Your task to perform on an android device: Open calendar and show me the second week of next month Image 0: 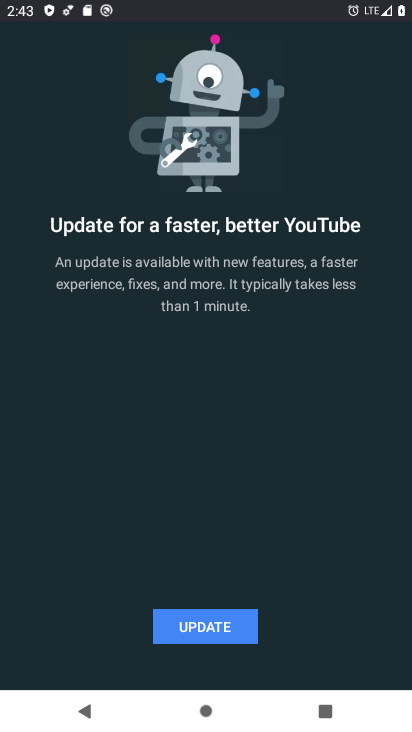
Step 0: press back button
Your task to perform on an android device: Open calendar and show me the second week of next month Image 1: 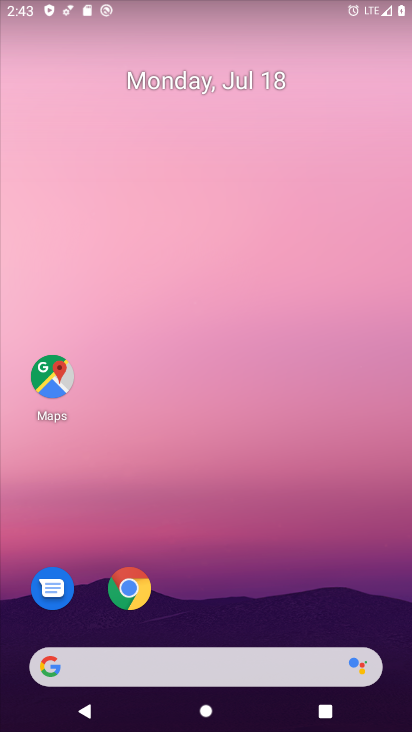
Step 1: drag from (179, 592) to (269, 137)
Your task to perform on an android device: Open calendar and show me the second week of next month Image 2: 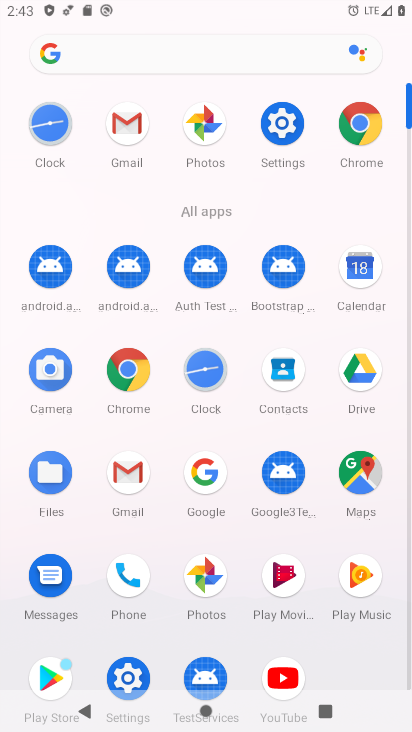
Step 2: click (364, 274)
Your task to perform on an android device: Open calendar and show me the second week of next month Image 3: 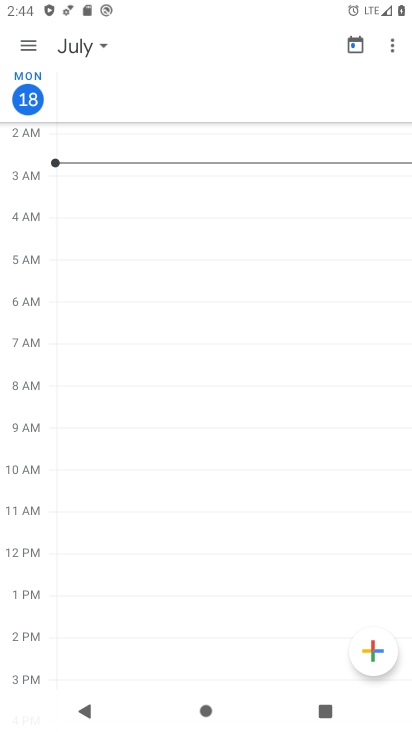
Step 3: click (97, 37)
Your task to perform on an android device: Open calendar and show me the second week of next month Image 4: 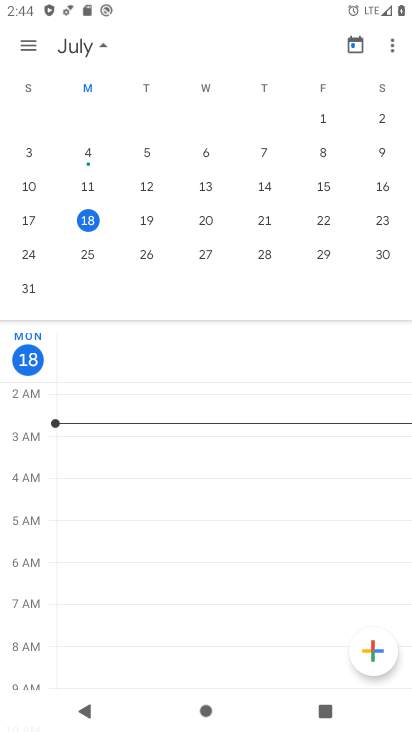
Step 4: drag from (354, 224) to (39, 181)
Your task to perform on an android device: Open calendar and show me the second week of next month Image 5: 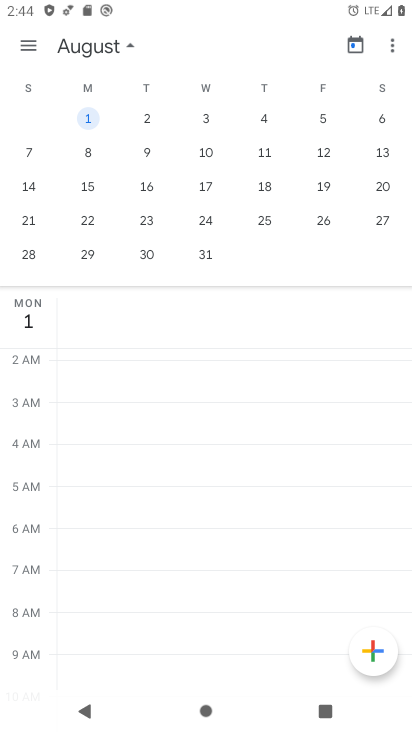
Step 5: click (93, 149)
Your task to perform on an android device: Open calendar and show me the second week of next month Image 6: 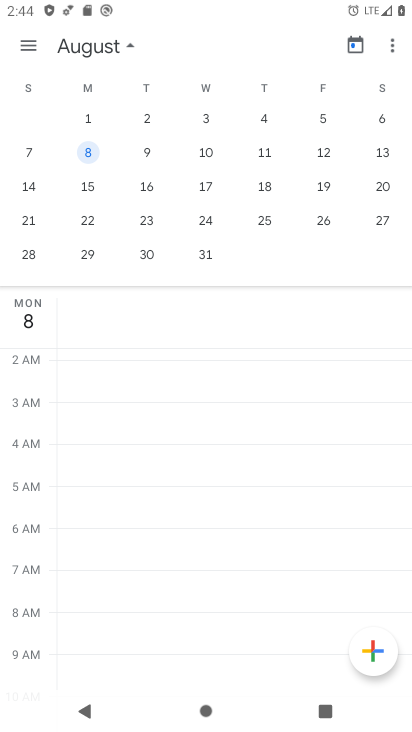
Step 6: task complete